Your task to perform on an android device: Go to Reddit.com Image 0: 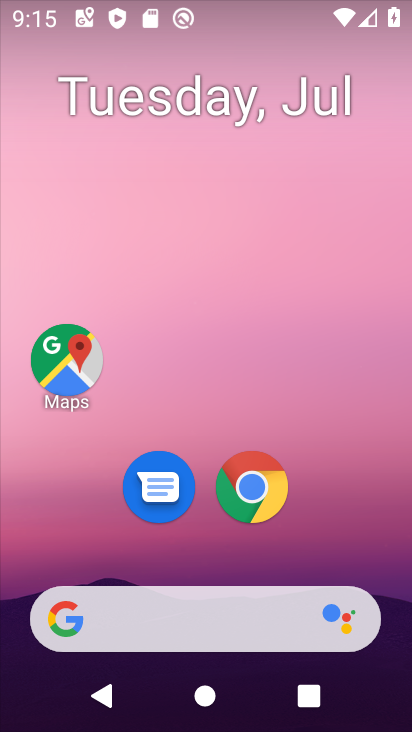
Step 0: click (251, 493)
Your task to perform on an android device: Go to Reddit.com Image 1: 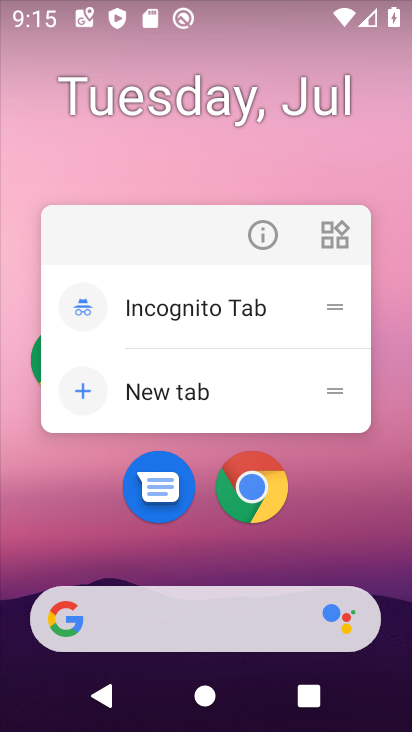
Step 1: click (250, 492)
Your task to perform on an android device: Go to Reddit.com Image 2: 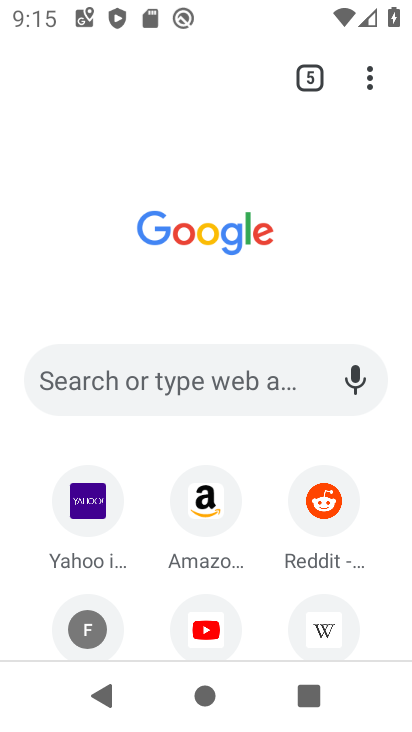
Step 2: click (328, 506)
Your task to perform on an android device: Go to Reddit.com Image 3: 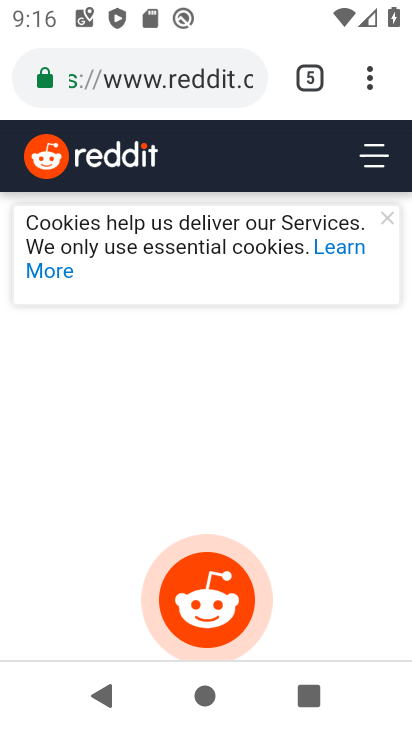
Step 3: task complete